Your task to perform on an android device: Open the stopwatch Image 0: 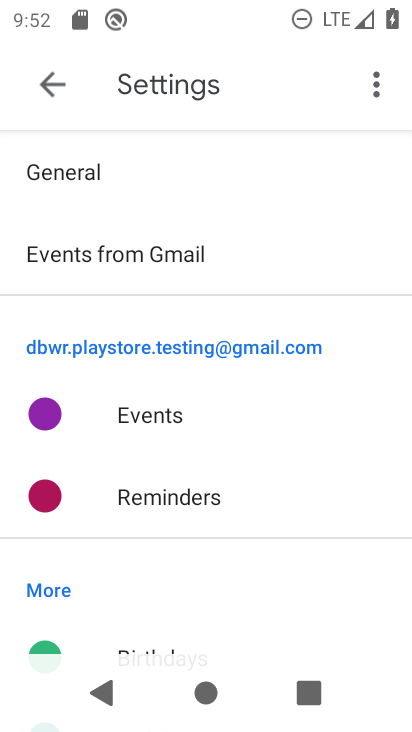
Step 0: press home button
Your task to perform on an android device: Open the stopwatch Image 1: 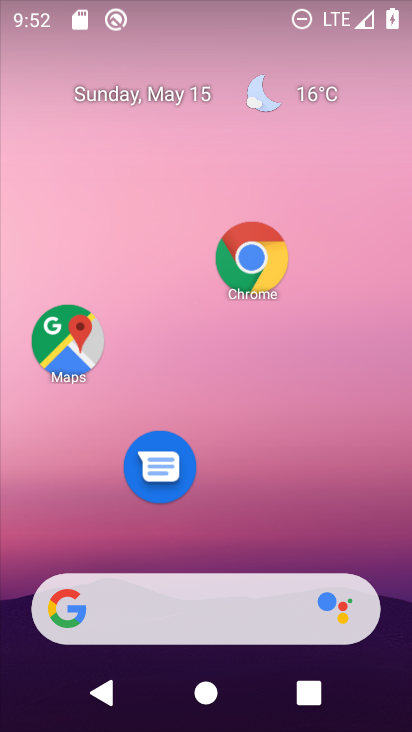
Step 1: drag from (232, 528) to (282, 140)
Your task to perform on an android device: Open the stopwatch Image 2: 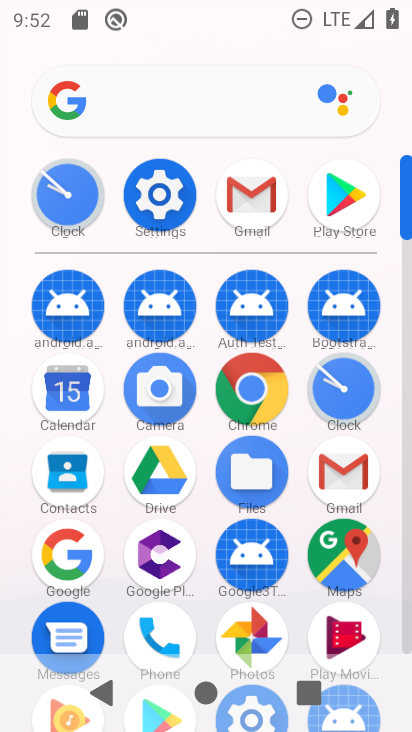
Step 2: click (369, 404)
Your task to perform on an android device: Open the stopwatch Image 3: 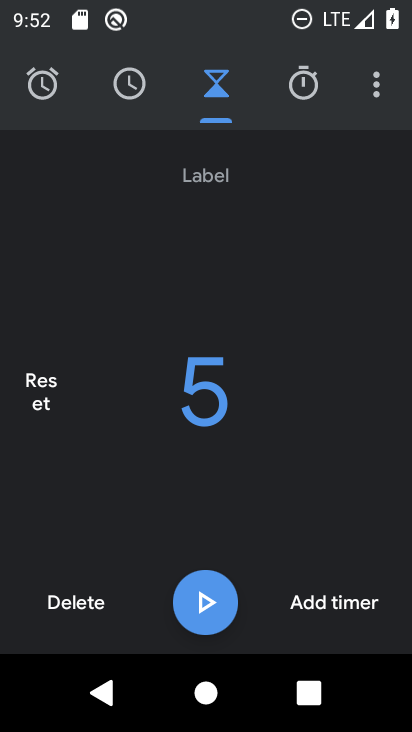
Step 3: click (316, 95)
Your task to perform on an android device: Open the stopwatch Image 4: 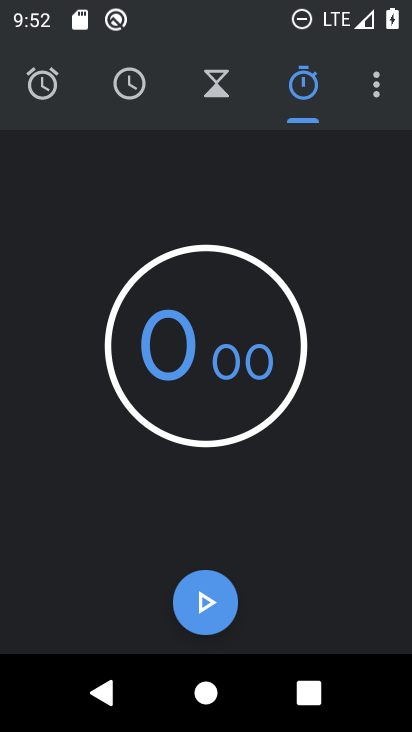
Step 4: task complete